Your task to perform on an android device: turn notification dots off Image 0: 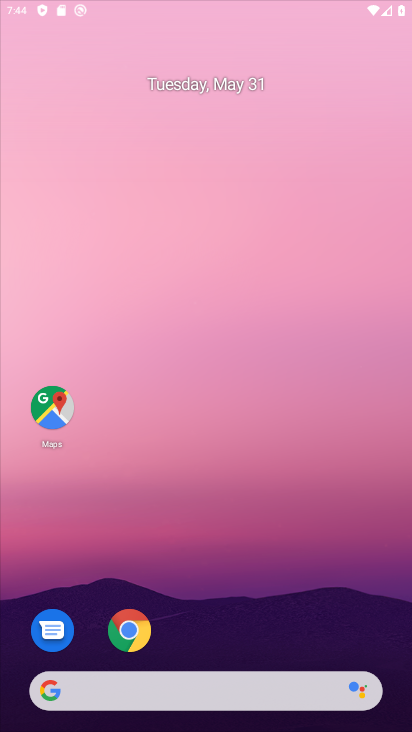
Step 0: press home button
Your task to perform on an android device: turn notification dots off Image 1: 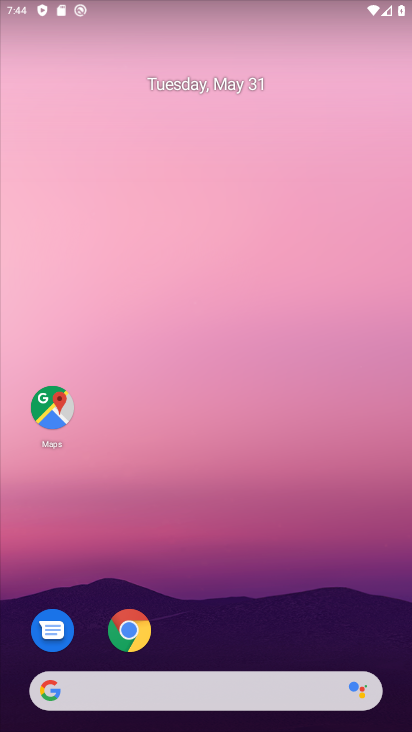
Step 1: drag from (229, 626) to (231, 193)
Your task to perform on an android device: turn notification dots off Image 2: 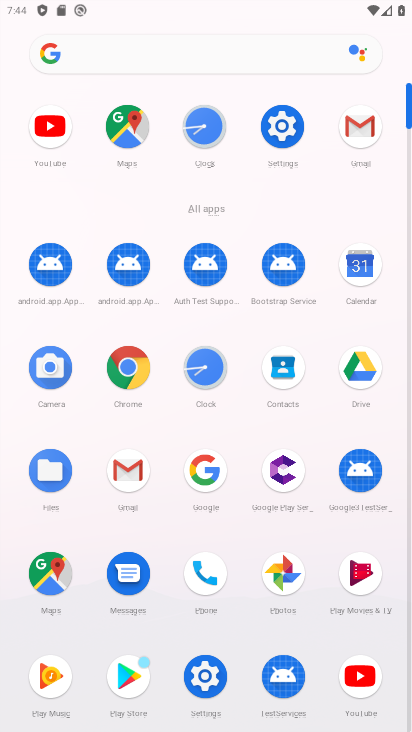
Step 2: click (288, 131)
Your task to perform on an android device: turn notification dots off Image 3: 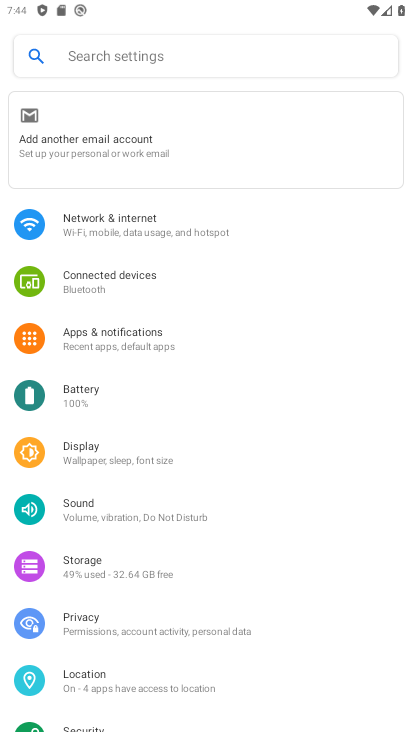
Step 3: click (110, 341)
Your task to perform on an android device: turn notification dots off Image 4: 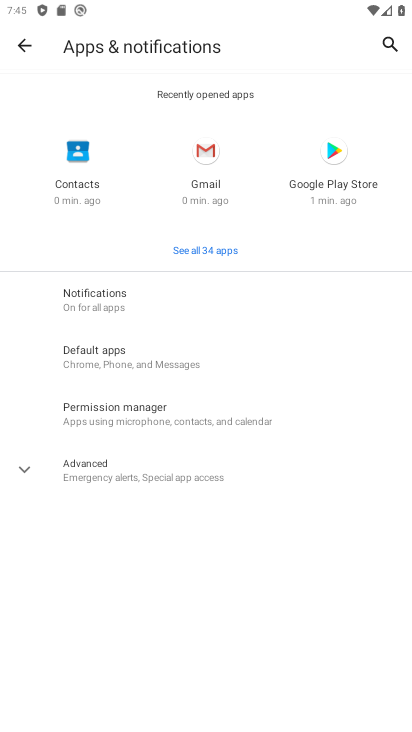
Step 4: click (89, 303)
Your task to perform on an android device: turn notification dots off Image 5: 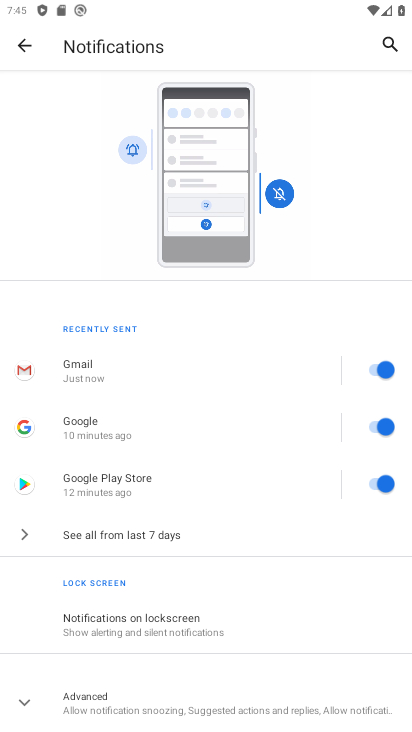
Step 5: drag from (208, 673) to (245, 259)
Your task to perform on an android device: turn notification dots off Image 6: 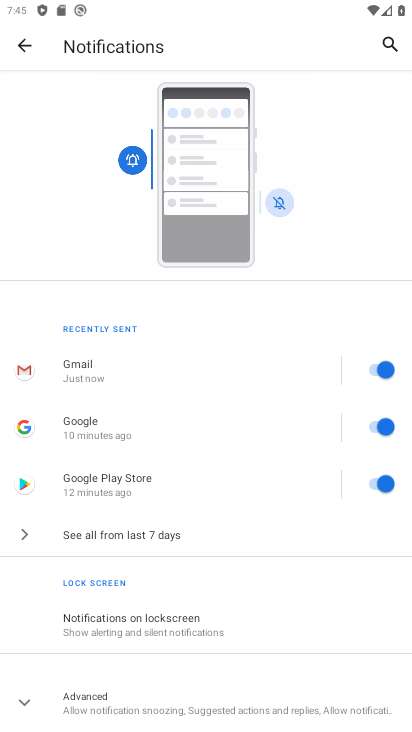
Step 6: click (73, 705)
Your task to perform on an android device: turn notification dots off Image 7: 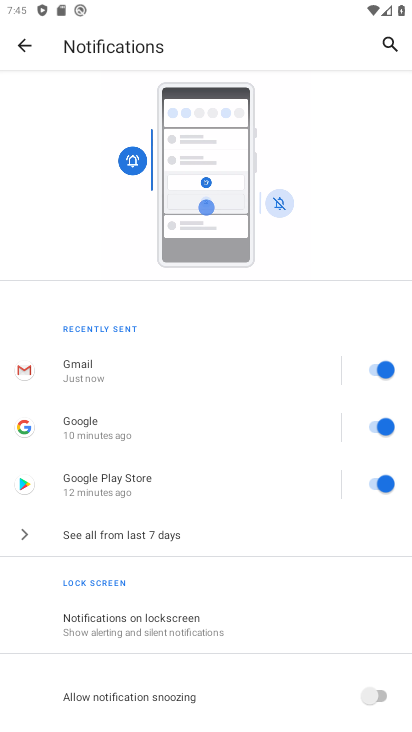
Step 7: drag from (276, 662) to (271, 312)
Your task to perform on an android device: turn notification dots off Image 8: 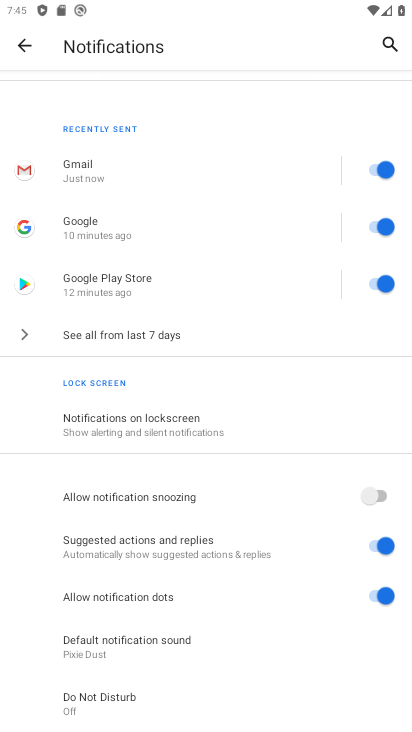
Step 8: click (384, 598)
Your task to perform on an android device: turn notification dots off Image 9: 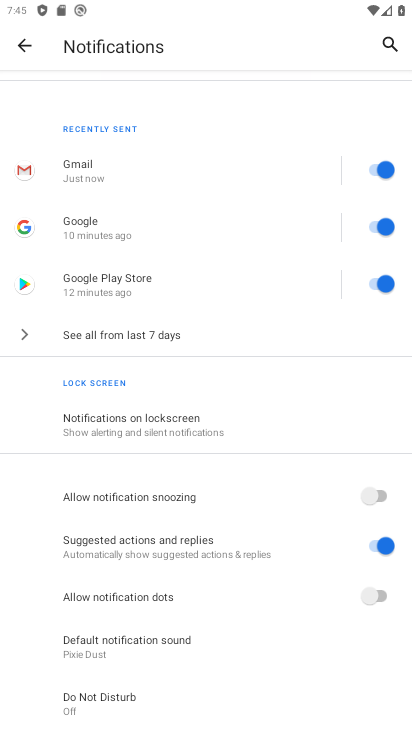
Step 9: task complete